Your task to perform on an android device: View the shopping cart on bestbuy. Search for alienware aurora on bestbuy, select the first entry, and add it to the cart. Image 0: 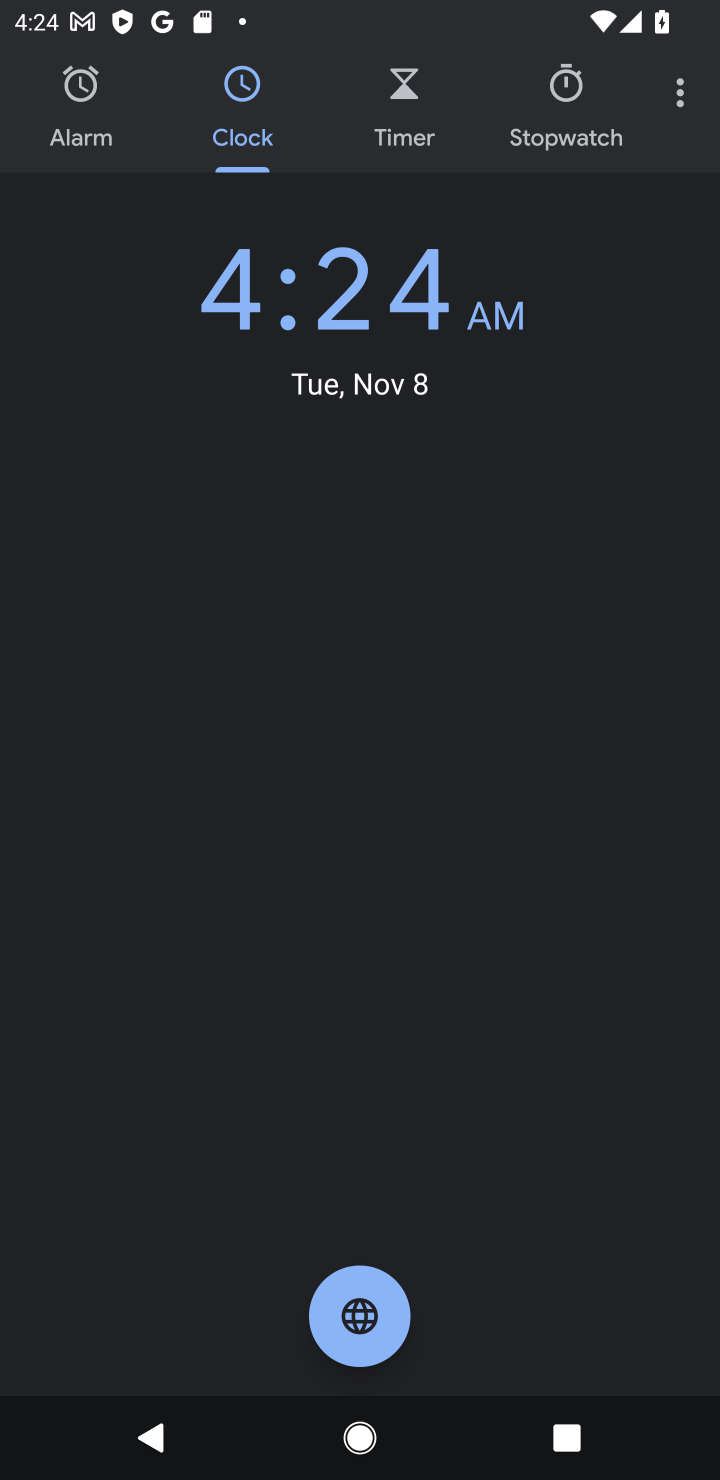
Step 0: press home button
Your task to perform on an android device: View the shopping cart on bestbuy. Search for alienware aurora on bestbuy, select the first entry, and add it to the cart. Image 1: 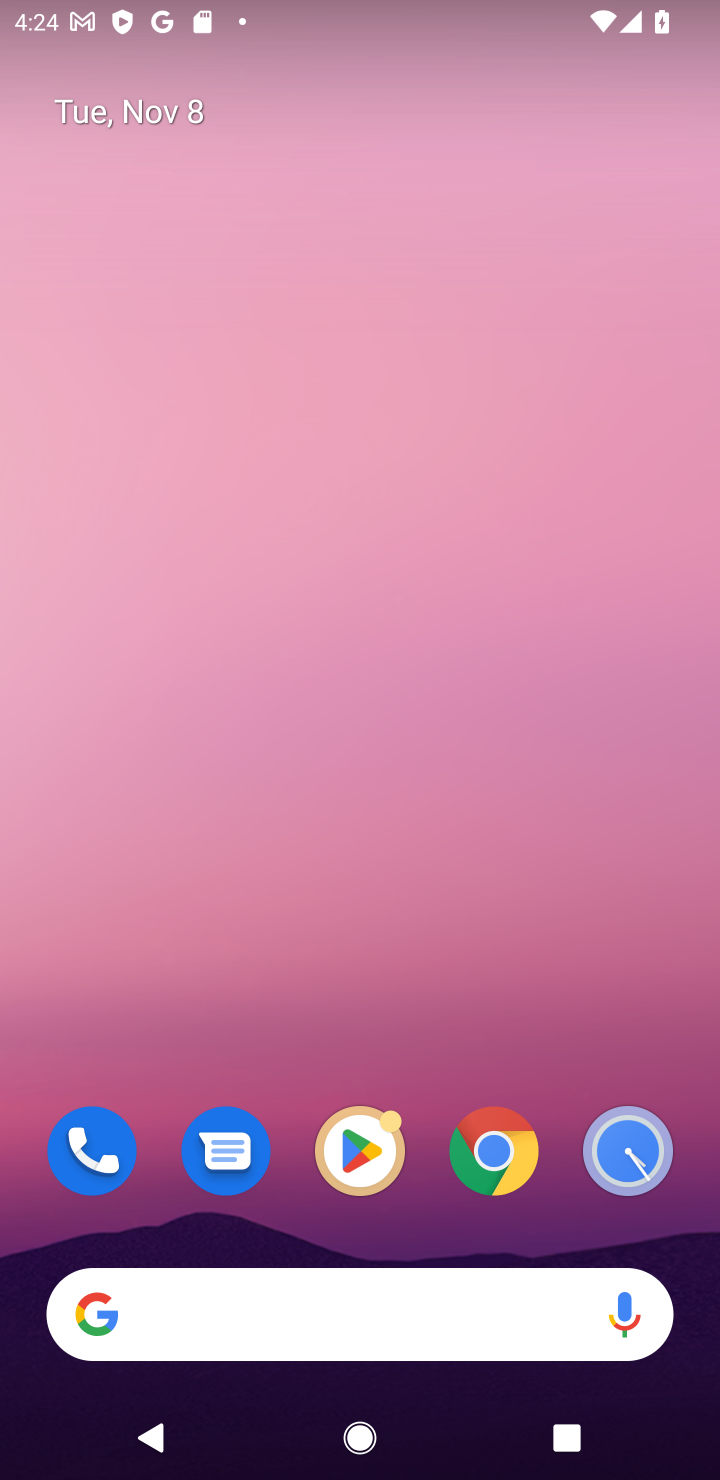
Step 1: drag from (427, 1235) to (399, 125)
Your task to perform on an android device: View the shopping cart on bestbuy. Search for alienware aurora on bestbuy, select the first entry, and add it to the cart. Image 2: 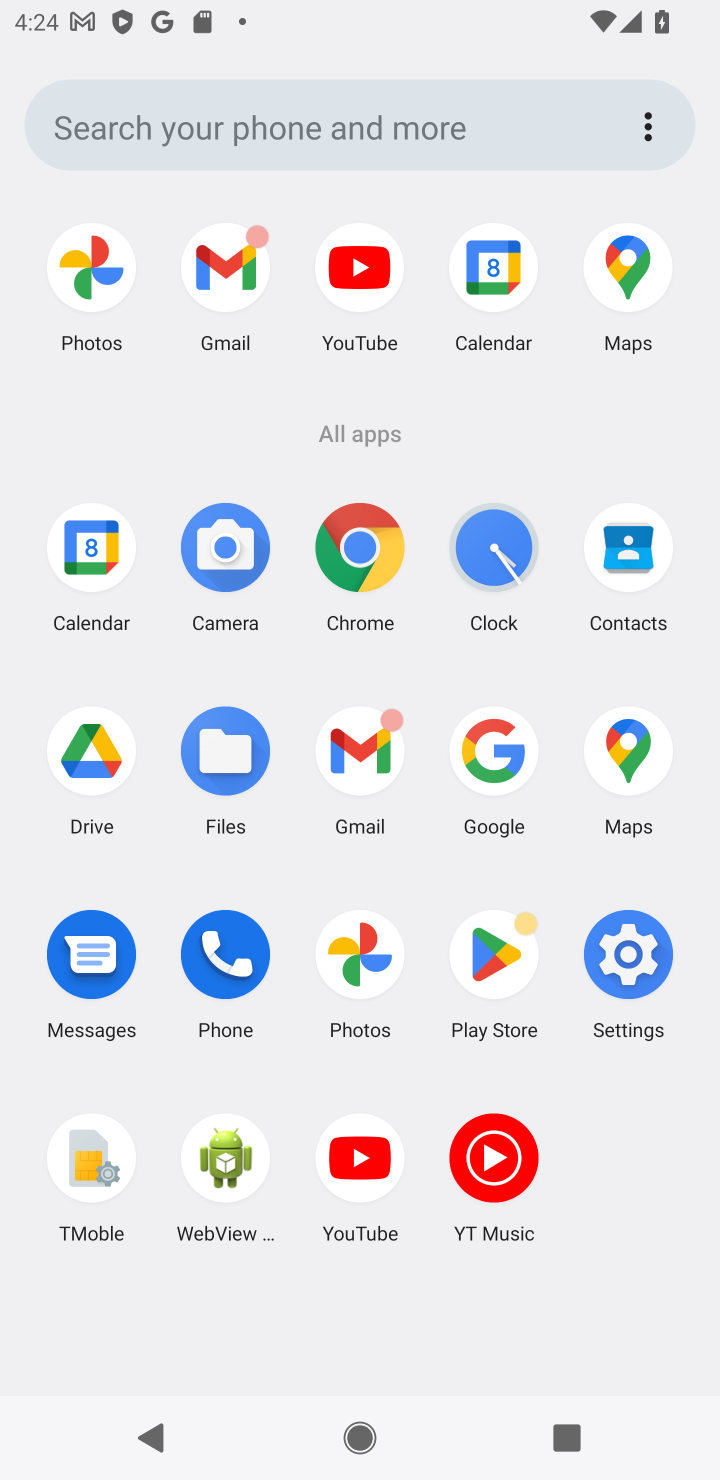
Step 2: click (356, 551)
Your task to perform on an android device: View the shopping cart on bestbuy. Search for alienware aurora on bestbuy, select the first entry, and add it to the cart. Image 3: 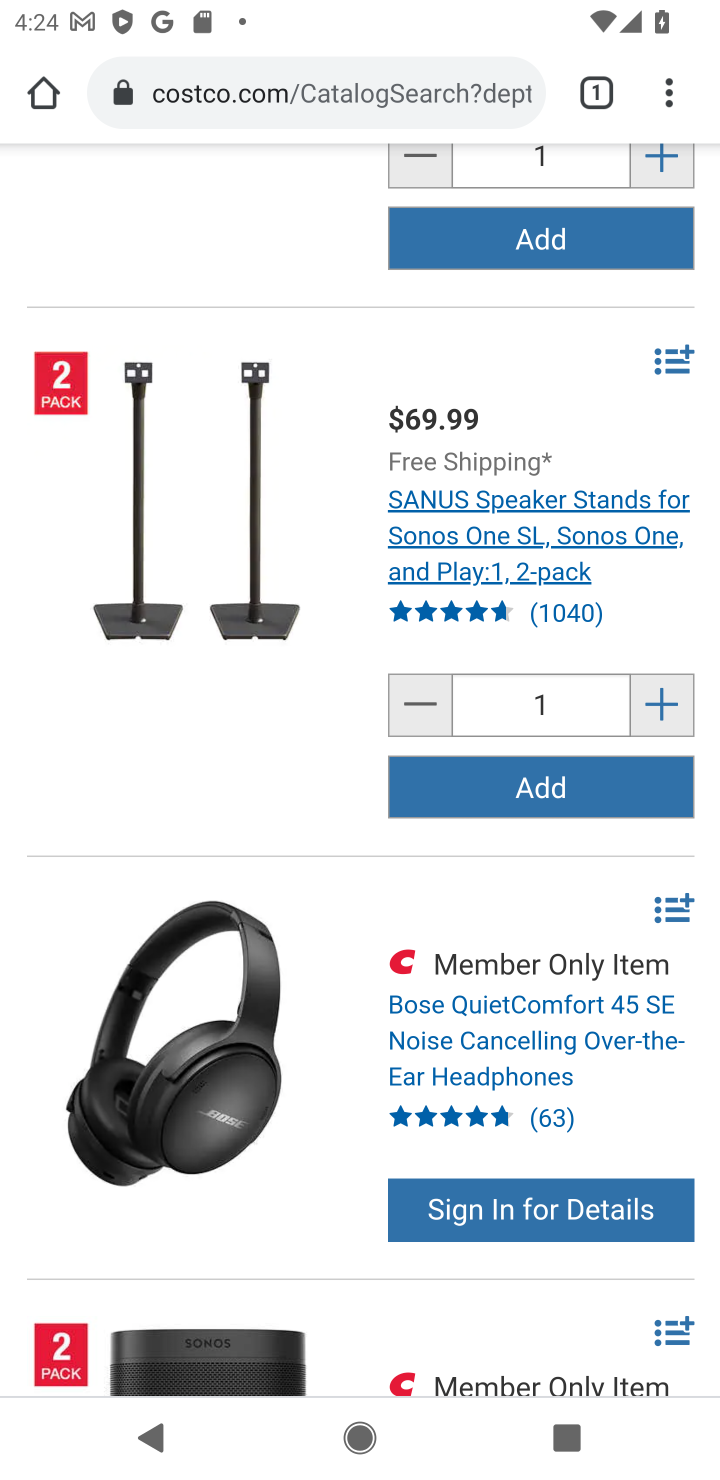
Step 3: click (396, 77)
Your task to perform on an android device: View the shopping cart on bestbuy. Search for alienware aurora on bestbuy, select the first entry, and add it to the cart. Image 4: 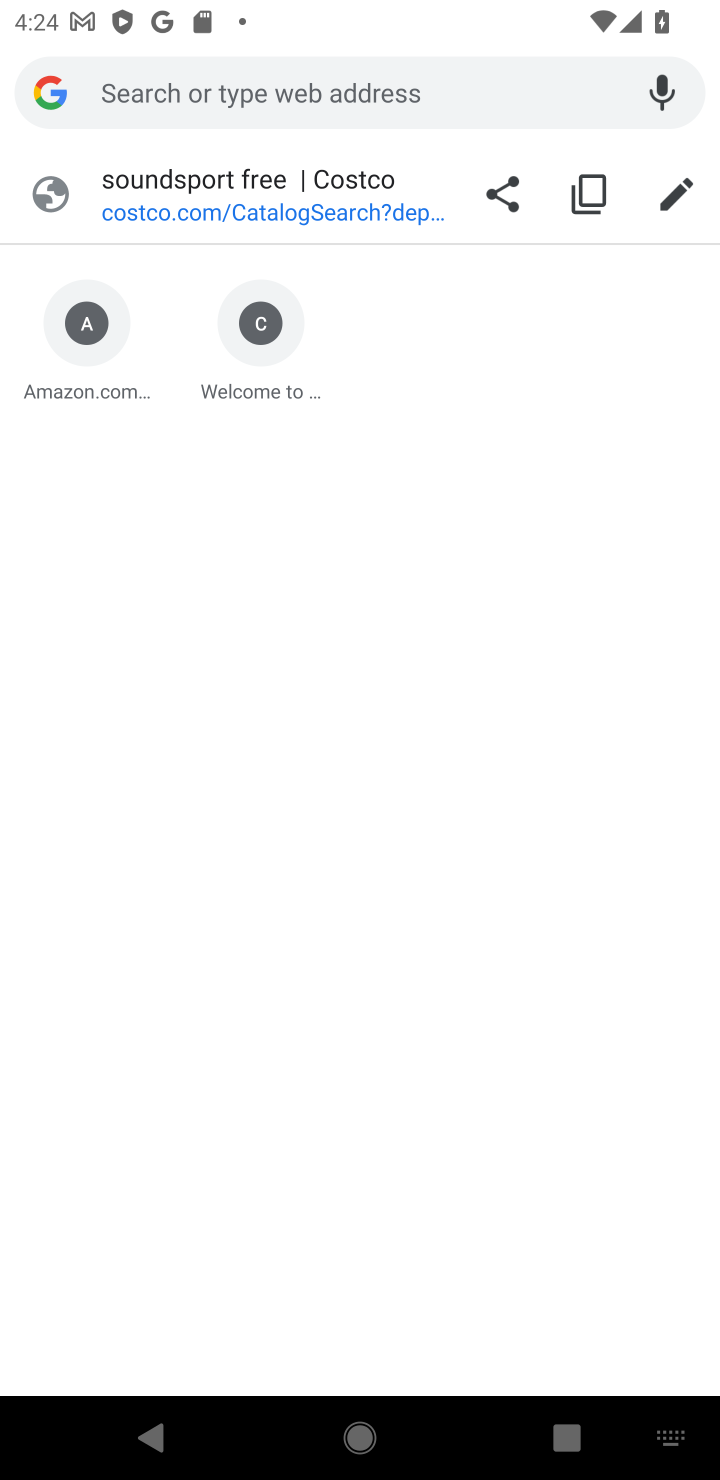
Step 4: type "bestbuy.com"
Your task to perform on an android device: View the shopping cart on bestbuy. Search for alienware aurora on bestbuy, select the first entry, and add it to the cart. Image 5: 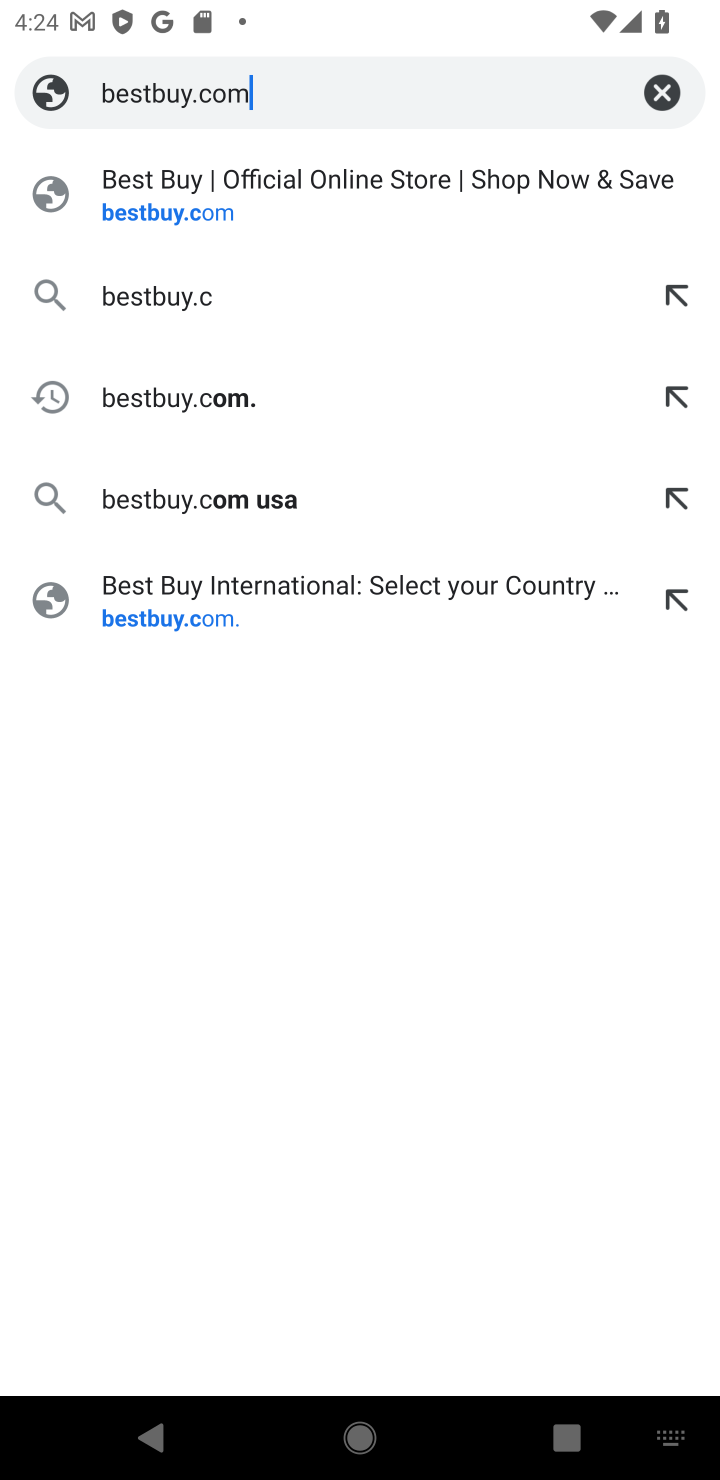
Step 5: press enter
Your task to perform on an android device: View the shopping cart on bestbuy. Search for alienware aurora on bestbuy, select the first entry, and add it to the cart. Image 6: 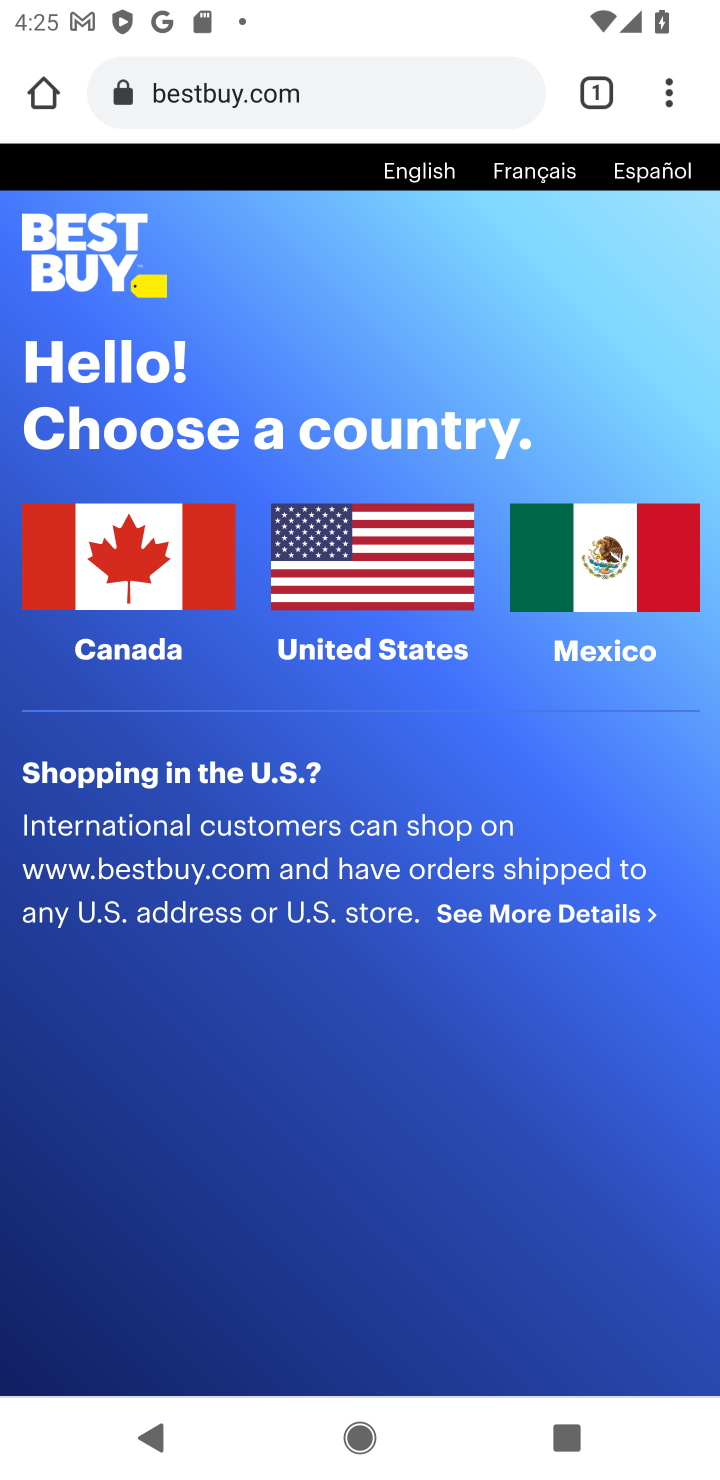
Step 6: click (72, 543)
Your task to perform on an android device: View the shopping cart on bestbuy. Search for alienware aurora on bestbuy, select the first entry, and add it to the cart. Image 7: 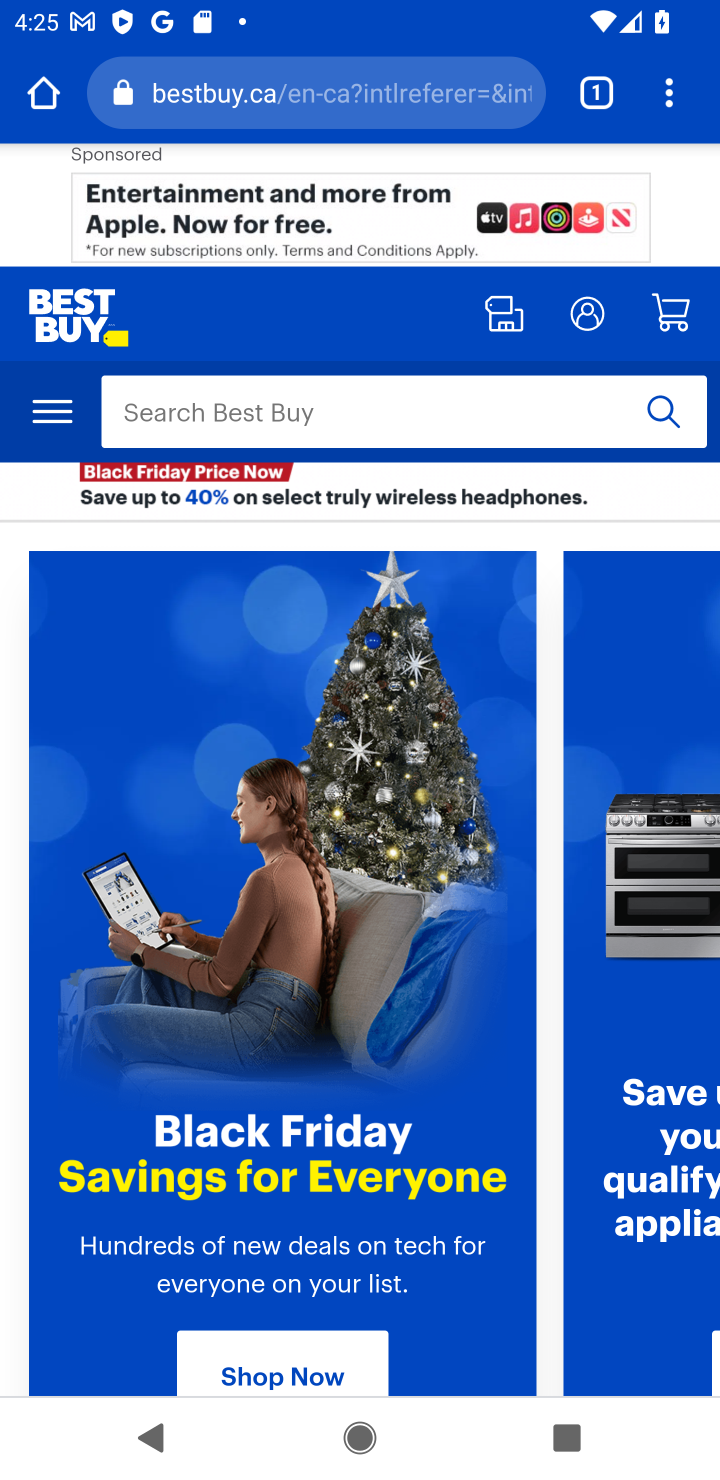
Step 7: click (670, 309)
Your task to perform on an android device: View the shopping cart on bestbuy. Search for alienware aurora on bestbuy, select the first entry, and add it to the cart. Image 8: 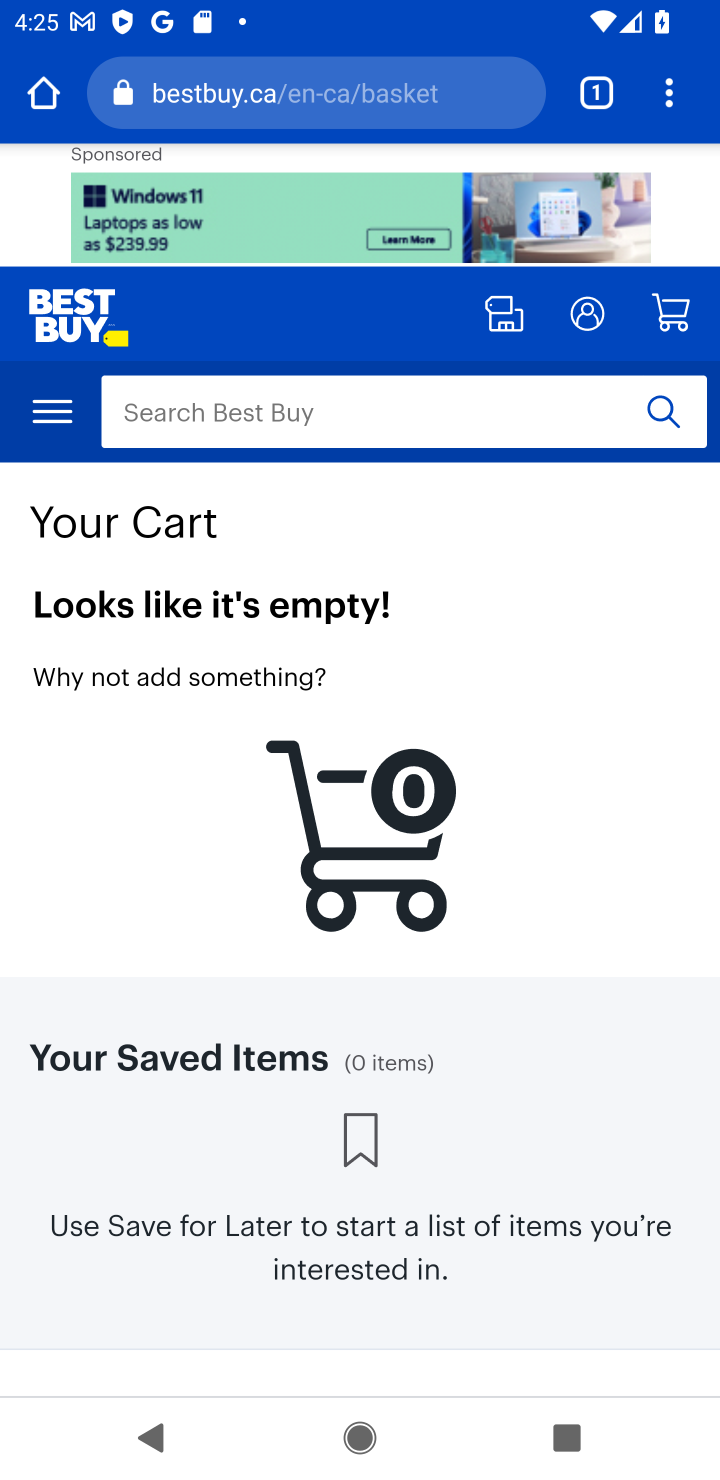
Step 8: click (488, 404)
Your task to perform on an android device: View the shopping cart on bestbuy. Search for alienware aurora on bestbuy, select the first entry, and add it to the cart. Image 9: 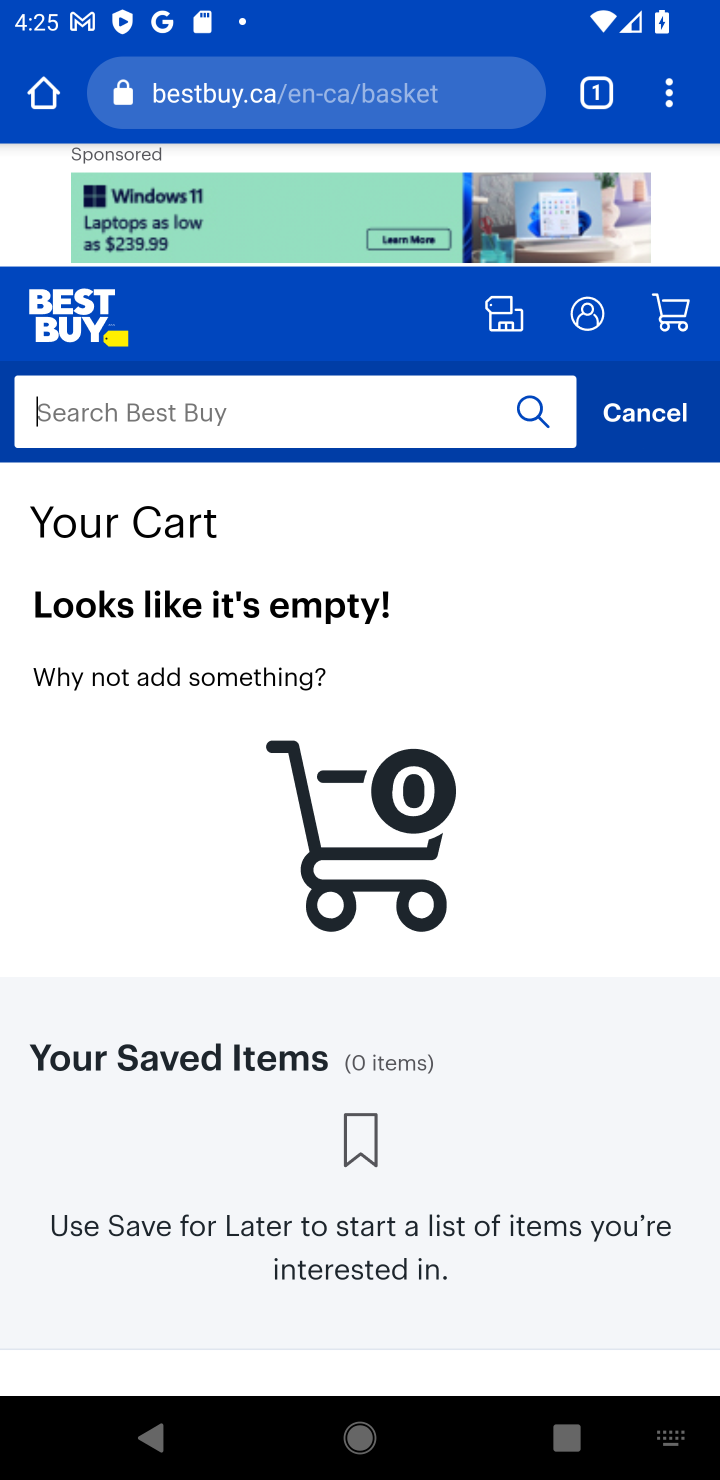
Step 9: type "alienware aurora"
Your task to perform on an android device: View the shopping cart on bestbuy. Search for alienware aurora on bestbuy, select the first entry, and add it to the cart. Image 10: 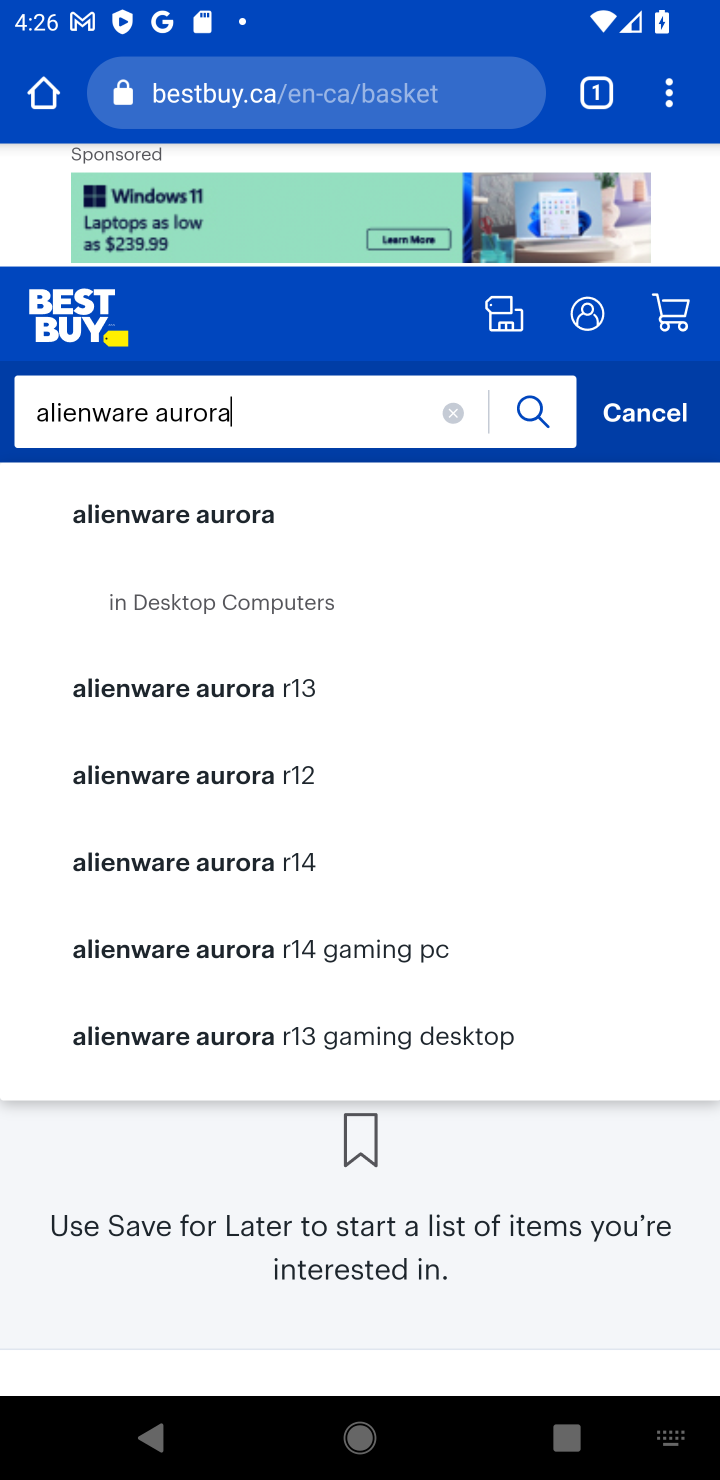
Step 10: press enter
Your task to perform on an android device: View the shopping cart on bestbuy. Search for alienware aurora on bestbuy, select the first entry, and add it to the cart. Image 11: 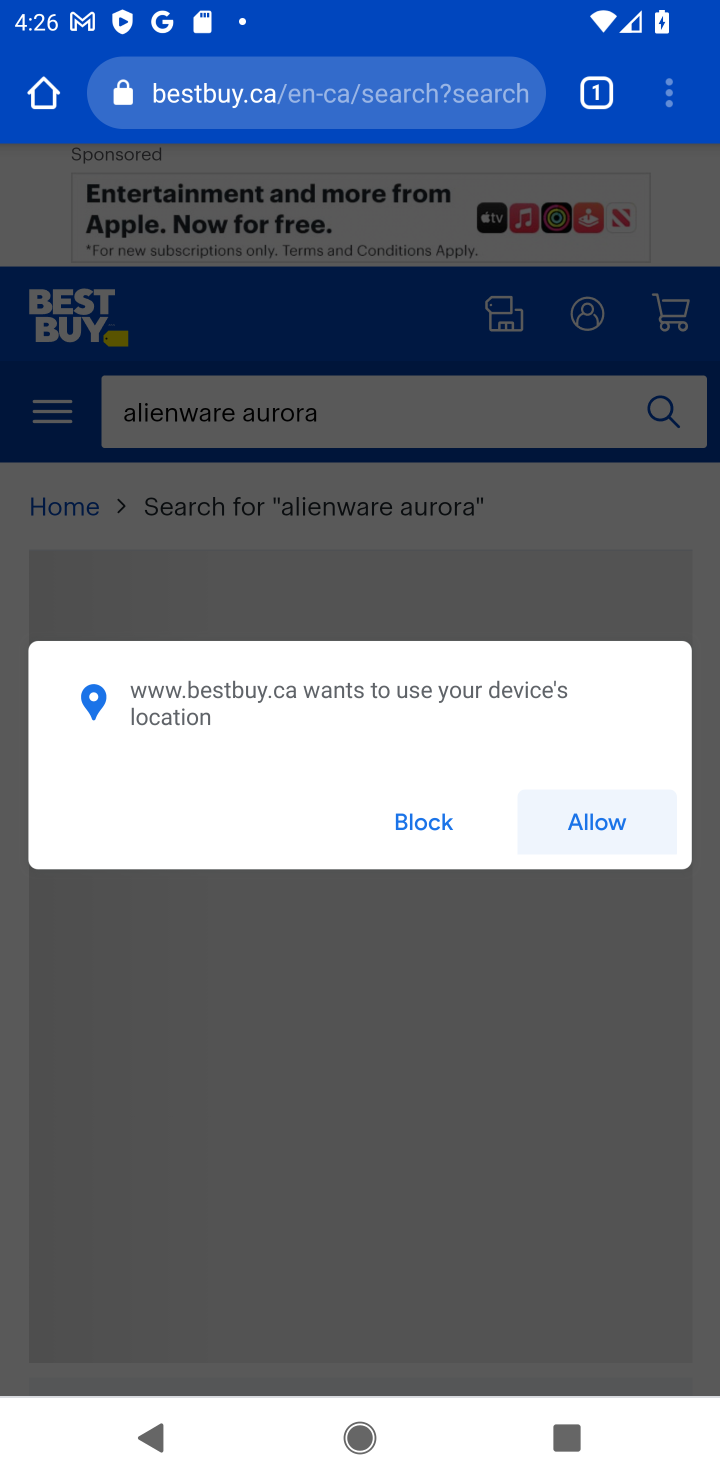
Step 11: click (412, 798)
Your task to perform on an android device: View the shopping cart on bestbuy. Search for alienware aurora on bestbuy, select the first entry, and add it to the cart. Image 12: 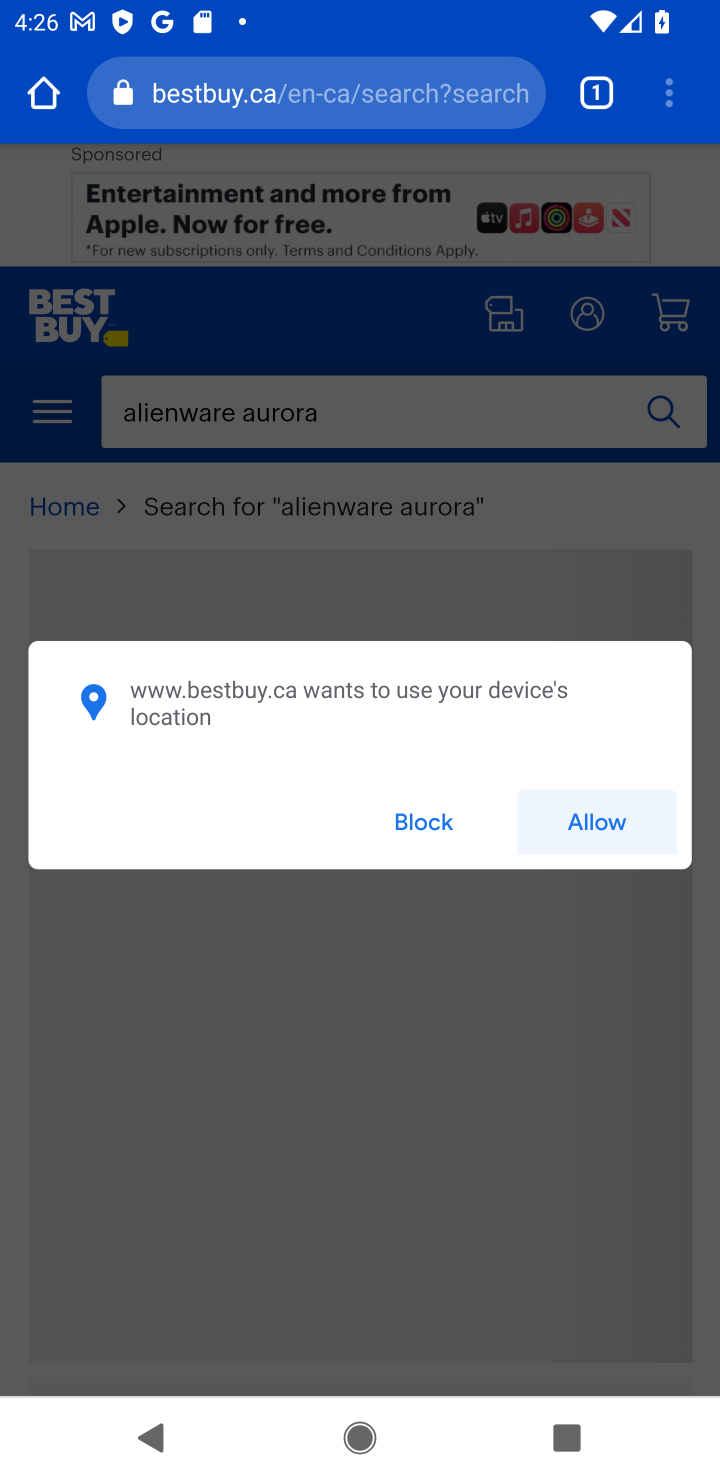
Step 12: click (404, 826)
Your task to perform on an android device: View the shopping cart on bestbuy. Search for alienware aurora on bestbuy, select the first entry, and add it to the cart. Image 13: 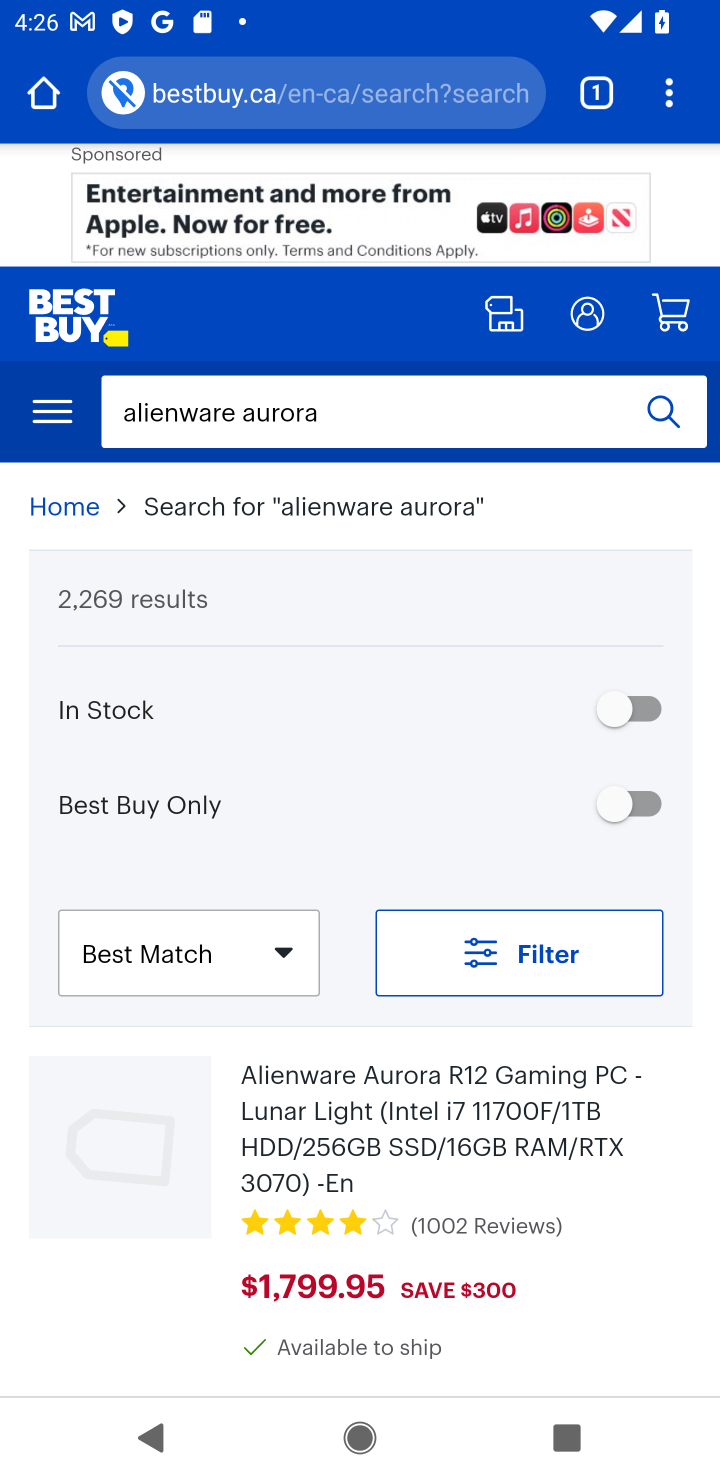
Step 13: click (666, 323)
Your task to perform on an android device: View the shopping cart on bestbuy. Search for alienware aurora on bestbuy, select the first entry, and add it to the cart. Image 14: 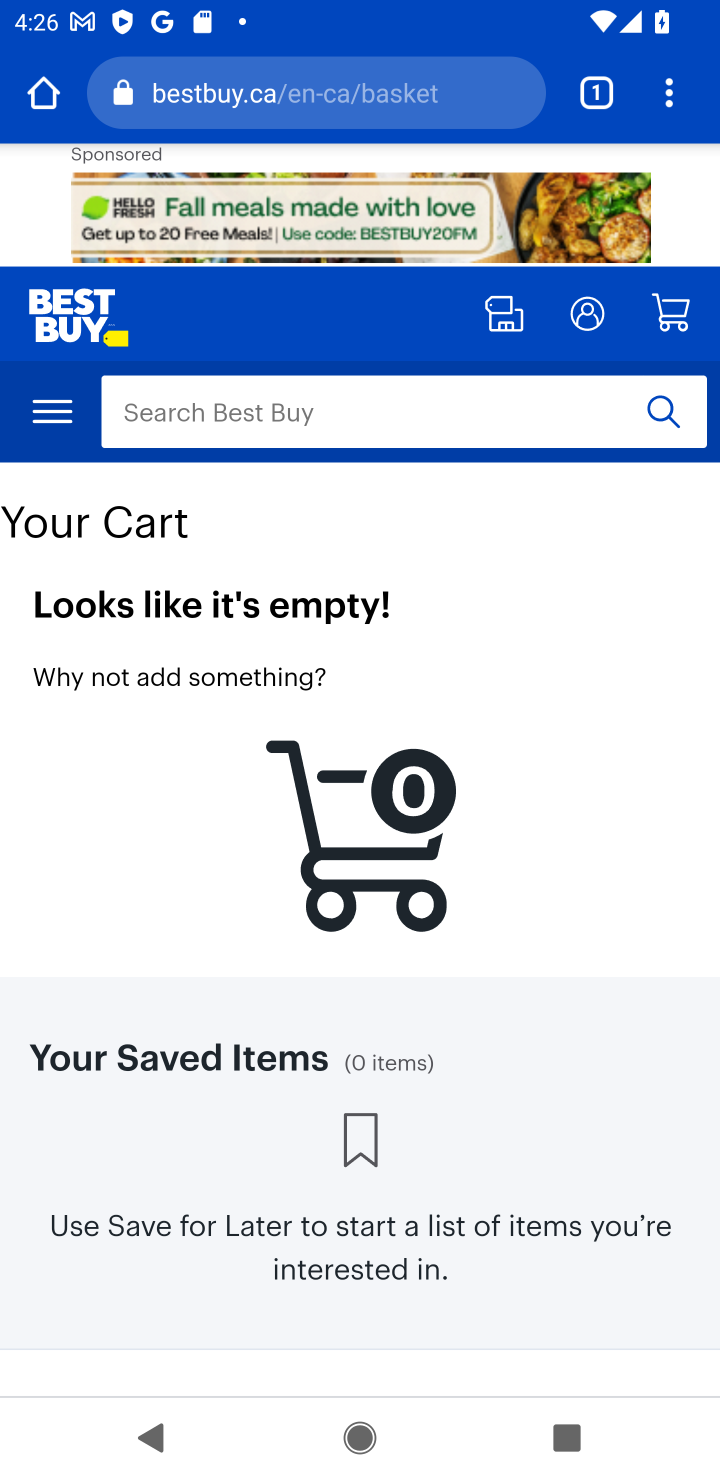
Step 14: click (403, 404)
Your task to perform on an android device: View the shopping cart on bestbuy. Search for alienware aurora on bestbuy, select the first entry, and add it to the cart. Image 15: 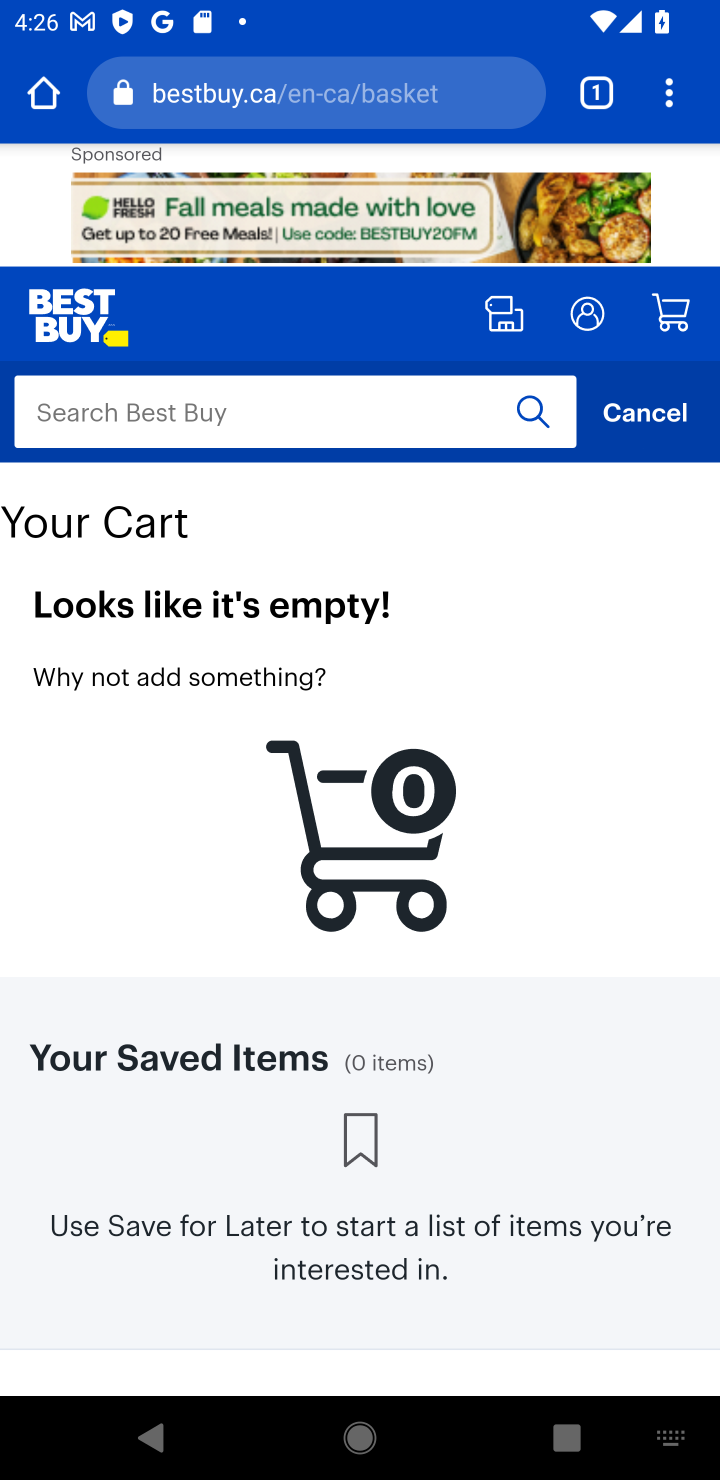
Step 15: type "alienware aurora"
Your task to perform on an android device: View the shopping cart on bestbuy. Search for alienware aurora on bestbuy, select the first entry, and add it to the cart. Image 16: 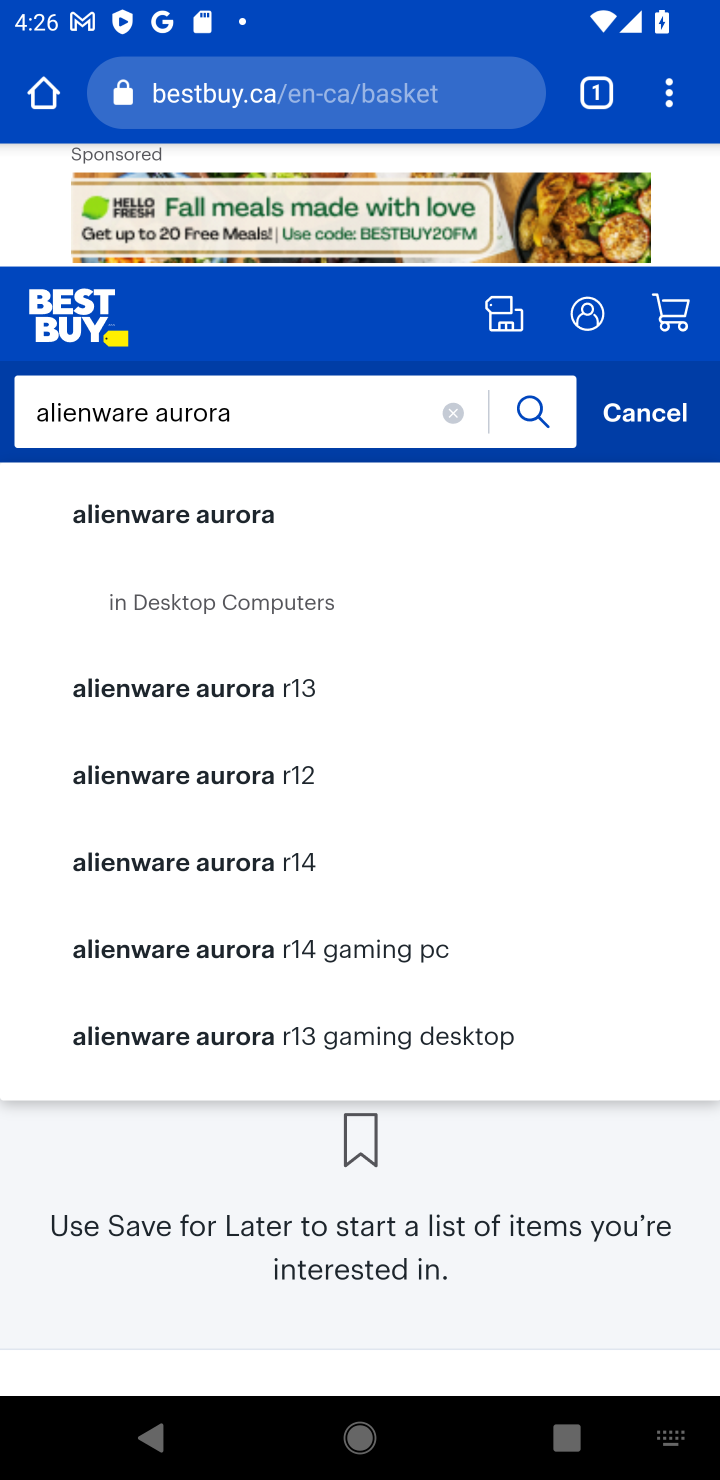
Step 16: press enter
Your task to perform on an android device: View the shopping cart on bestbuy. Search for alienware aurora on bestbuy, select the first entry, and add it to the cart. Image 17: 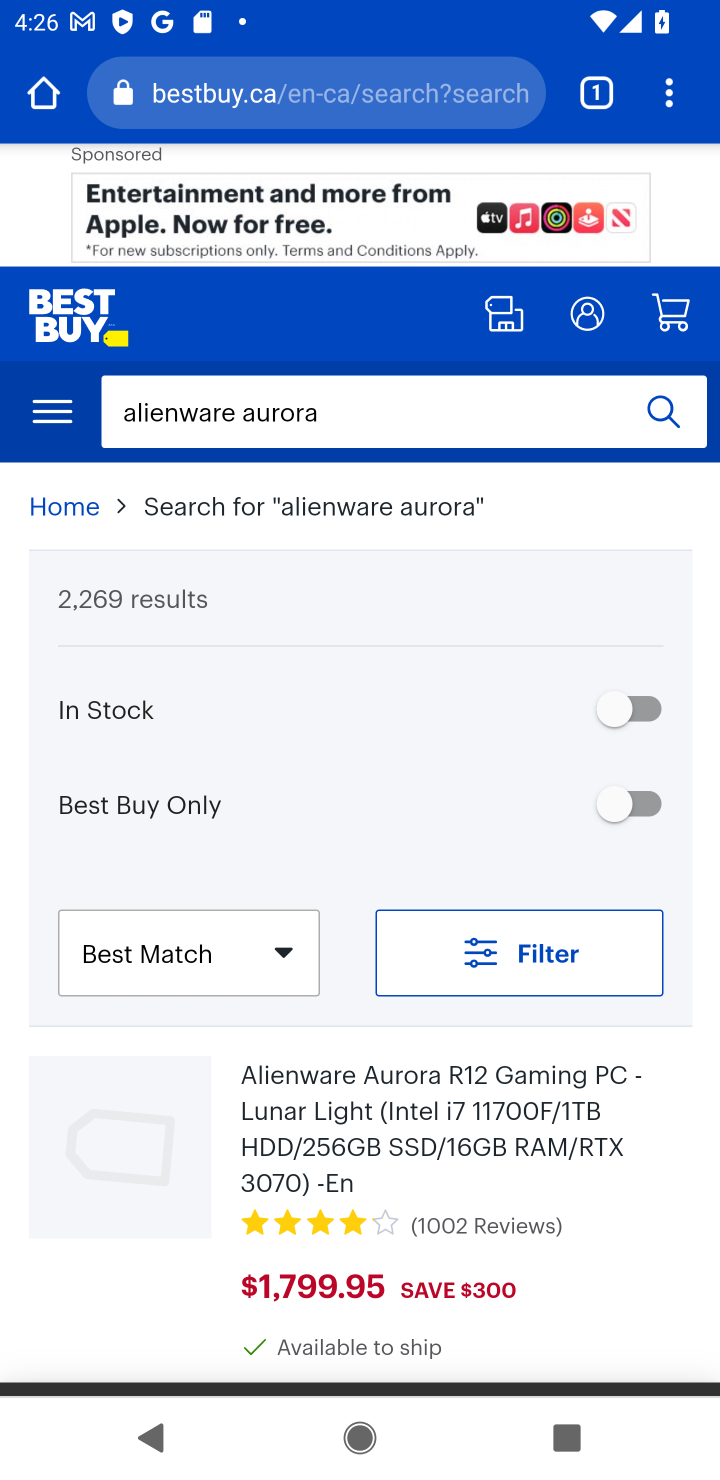
Step 17: drag from (363, 1188) to (383, 608)
Your task to perform on an android device: View the shopping cart on bestbuy. Search for alienware aurora on bestbuy, select the first entry, and add it to the cart. Image 18: 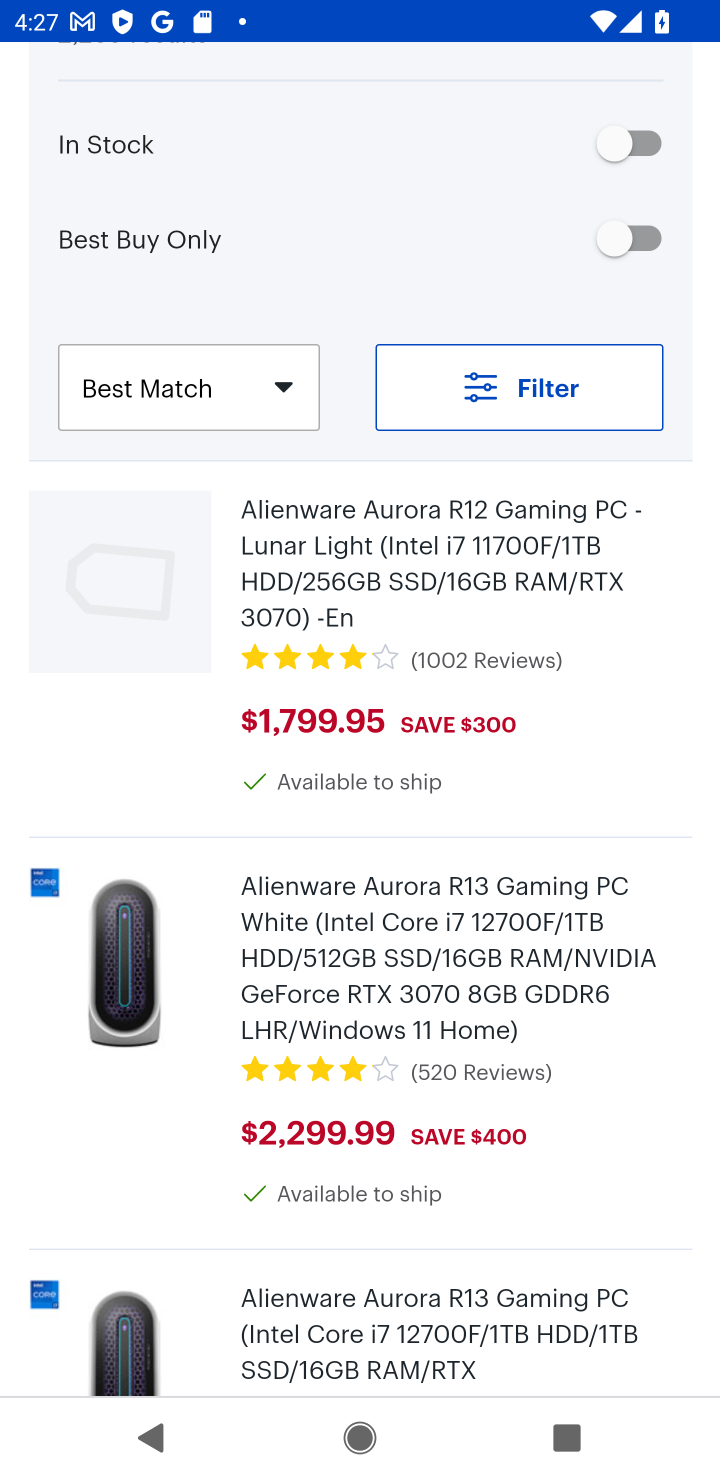
Step 18: click (384, 580)
Your task to perform on an android device: View the shopping cart on bestbuy. Search for alienware aurora on bestbuy, select the first entry, and add it to the cart. Image 19: 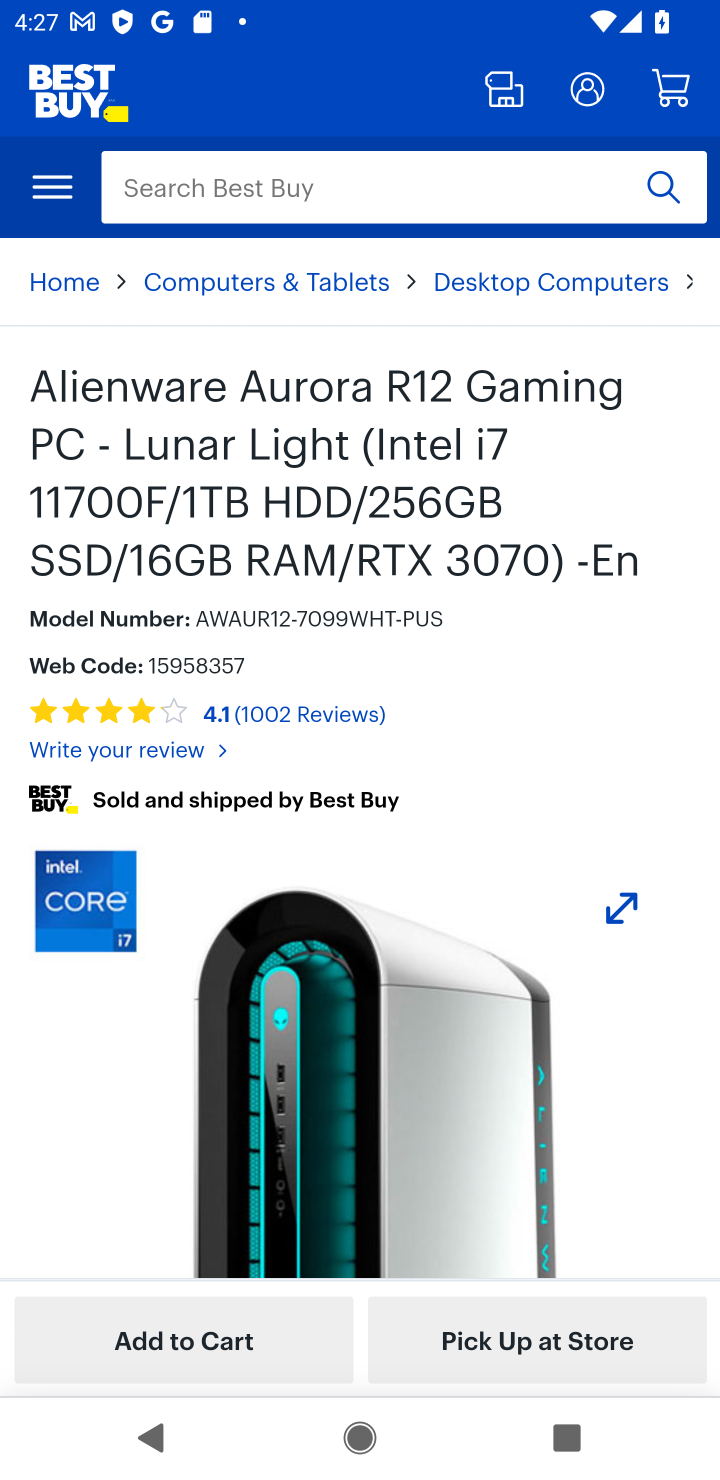
Step 19: drag from (519, 1166) to (606, 174)
Your task to perform on an android device: View the shopping cart on bestbuy. Search for alienware aurora on bestbuy, select the first entry, and add it to the cart. Image 20: 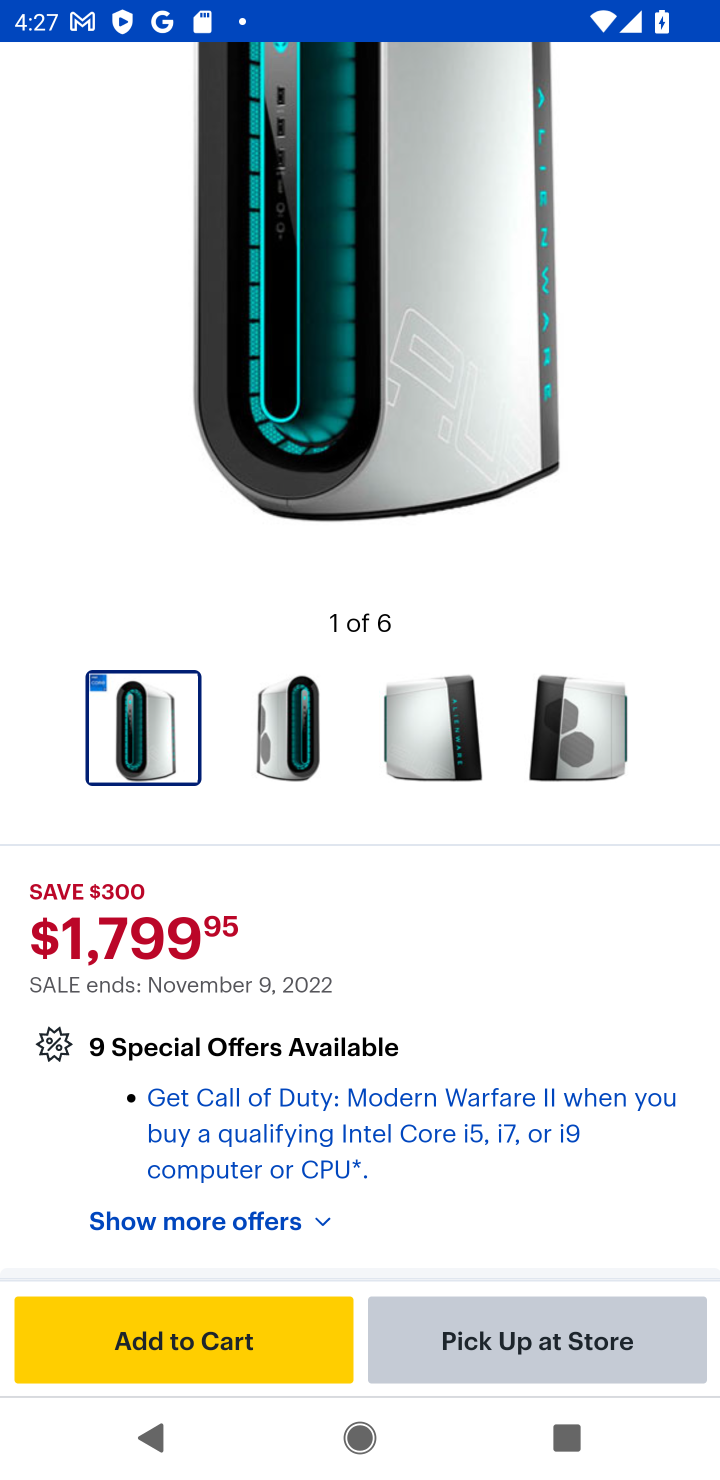
Step 20: click (189, 1342)
Your task to perform on an android device: View the shopping cart on bestbuy. Search for alienware aurora on bestbuy, select the first entry, and add it to the cart. Image 21: 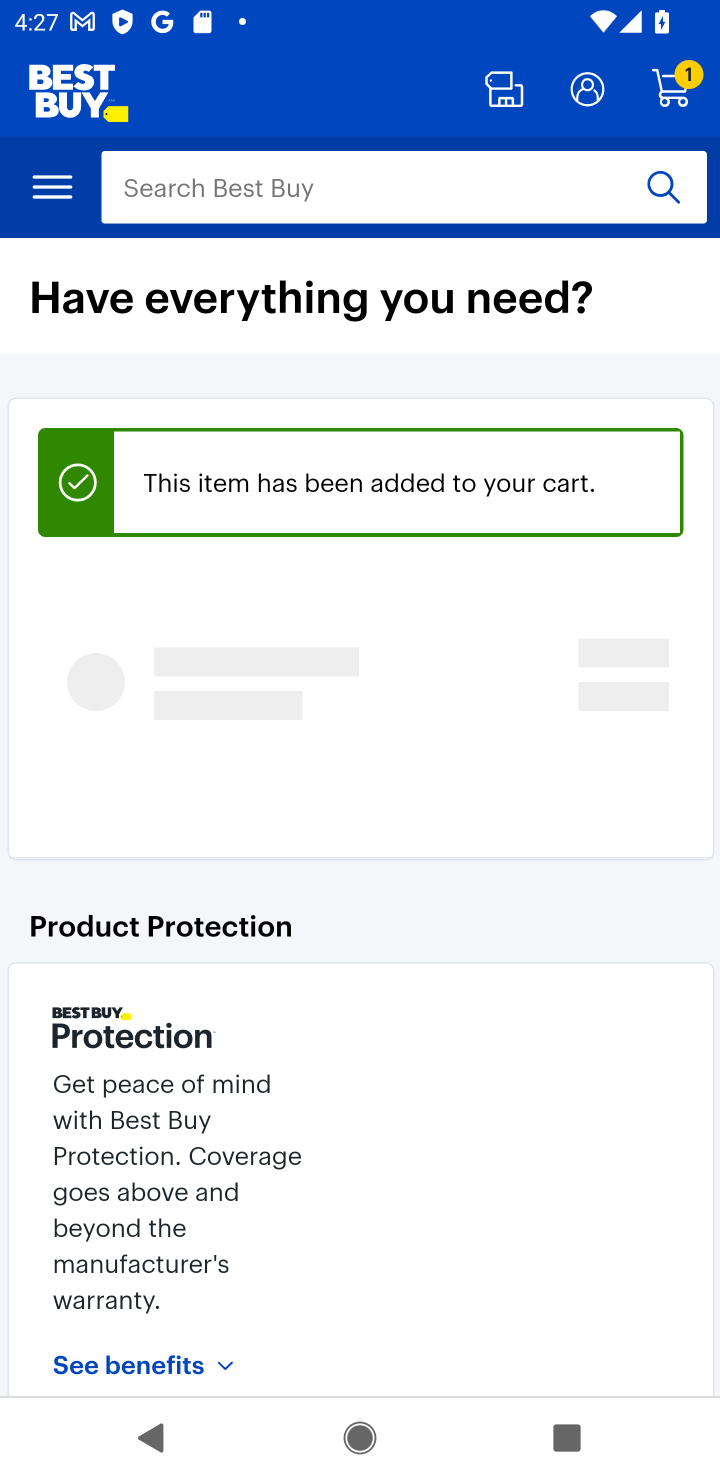
Step 21: task complete